Your task to perform on an android device: Is it going to rain tomorrow? Image 0: 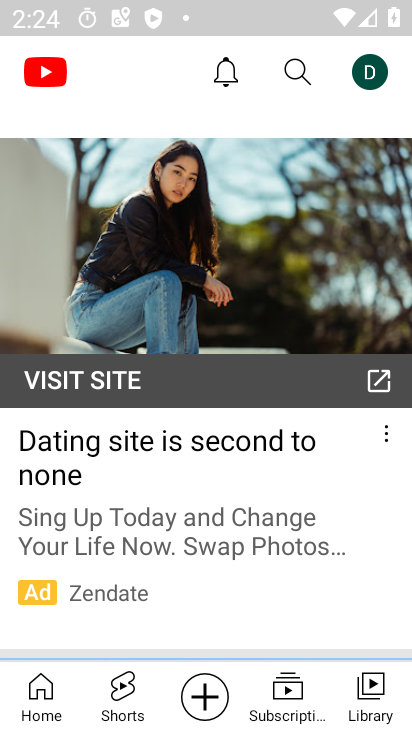
Step 0: press home button
Your task to perform on an android device: Is it going to rain tomorrow? Image 1: 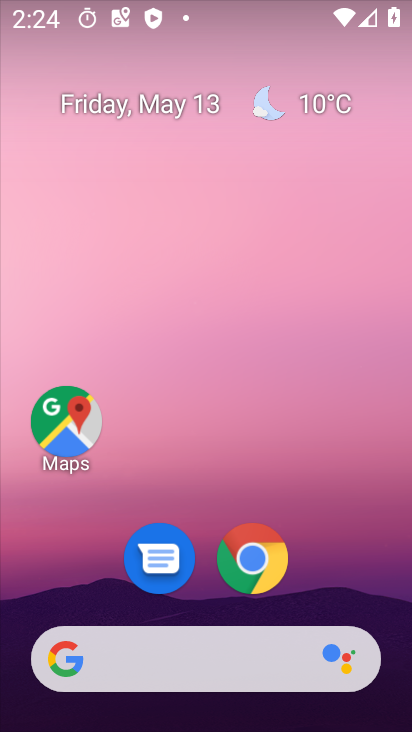
Step 1: drag from (212, 607) to (231, 230)
Your task to perform on an android device: Is it going to rain tomorrow? Image 2: 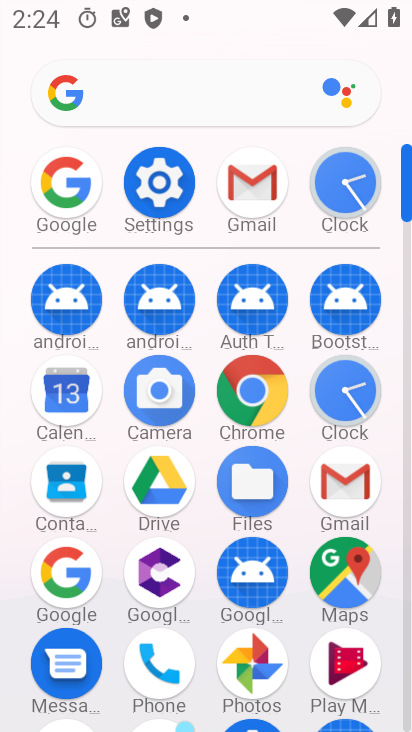
Step 2: click (52, 202)
Your task to perform on an android device: Is it going to rain tomorrow? Image 3: 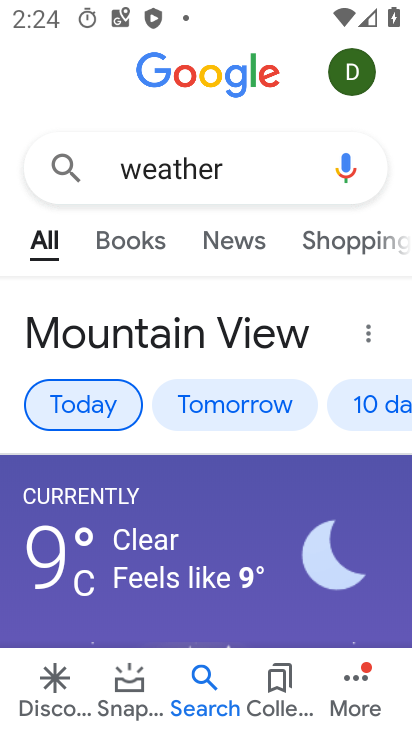
Step 3: click (186, 398)
Your task to perform on an android device: Is it going to rain tomorrow? Image 4: 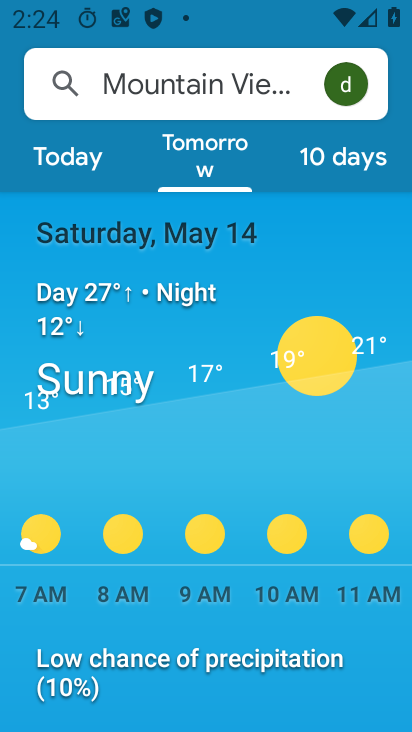
Step 4: task complete